Your task to perform on an android device: add a contact Image 0: 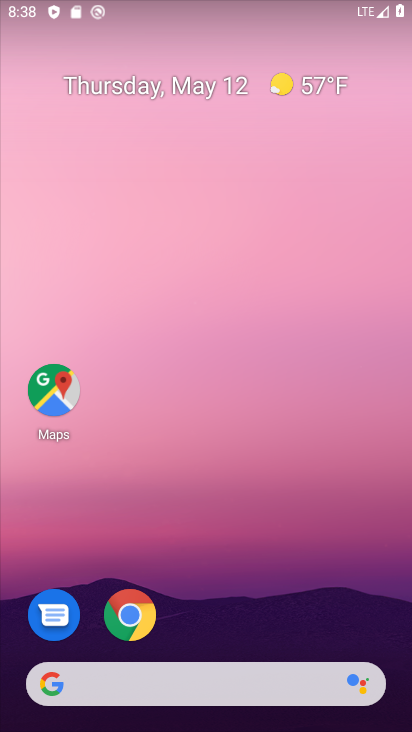
Step 0: drag from (219, 497) to (216, 38)
Your task to perform on an android device: add a contact Image 1: 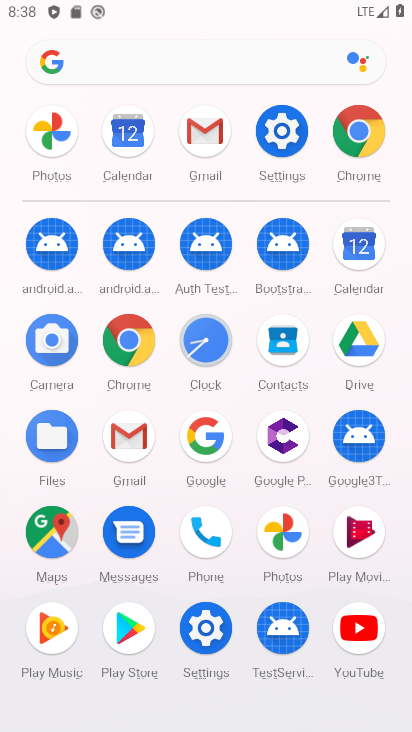
Step 1: click (204, 531)
Your task to perform on an android device: add a contact Image 2: 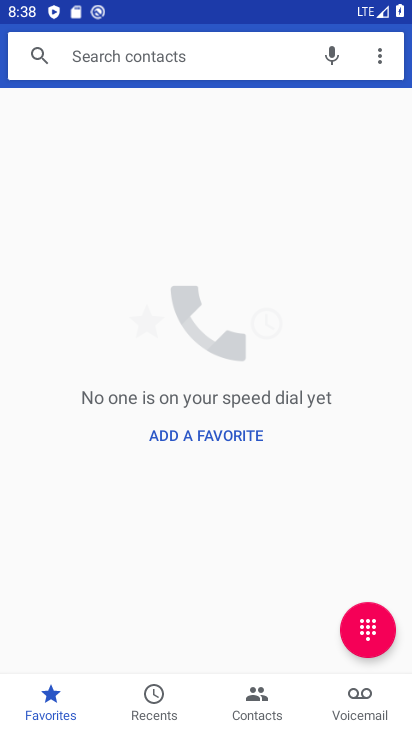
Step 2: click (366, 628)
Your task to perform on an android device: add a contact Image 3: 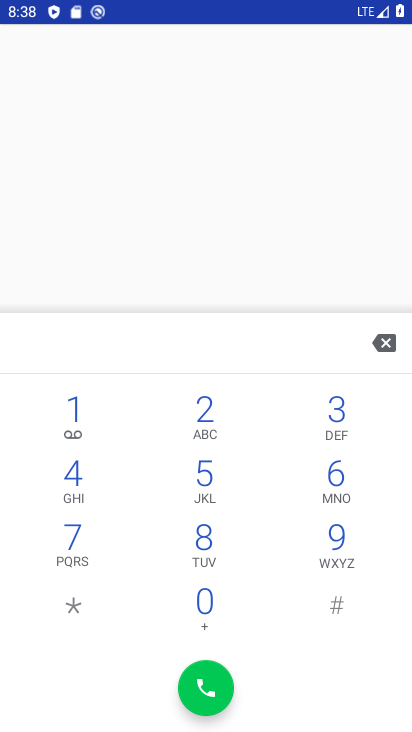
Step 3: click (388, 344)
Your task to perform on an android device: add a contact Image 4: 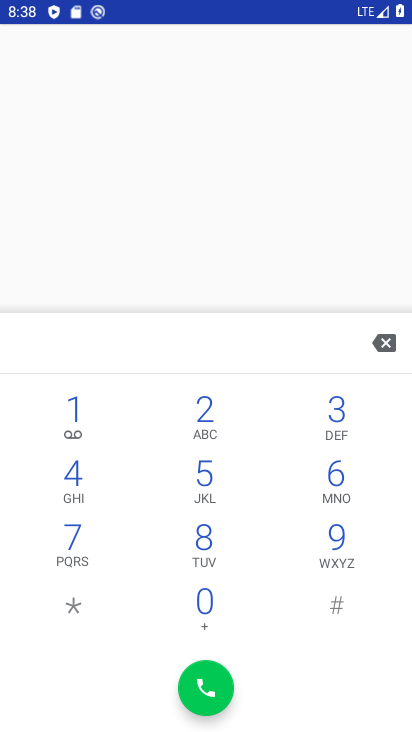
Step 4: press back button
Your task to perform on an android device: add a contact Image 5: 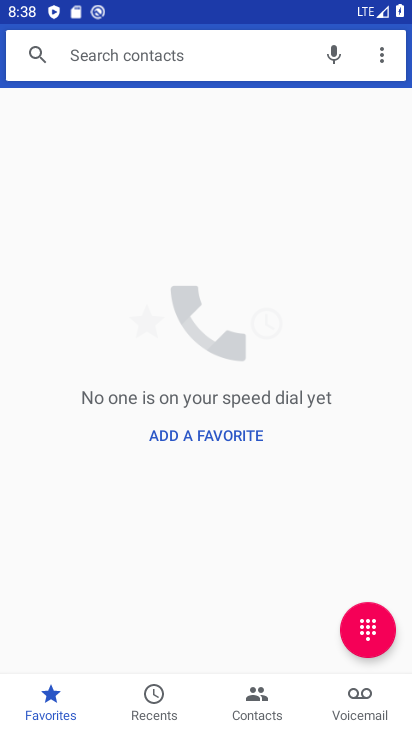
Step 5: click (217, 433)
Your task to perform on an android device: add a contact Image 6: 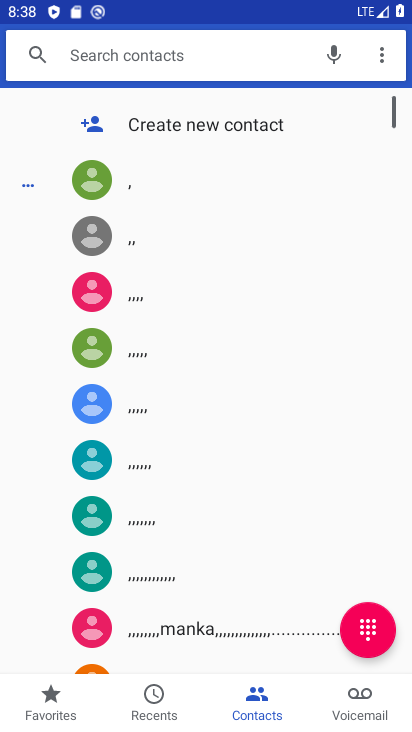
Step 6: click (89, 113)
Your task to perform on an android device: add a contact Image 7: 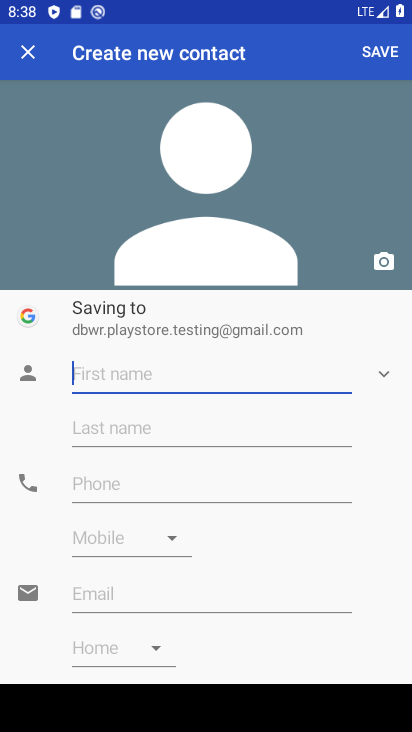
Step 7: type "ZXcv"
Your task to perform on an android device: add a contact Image 8: 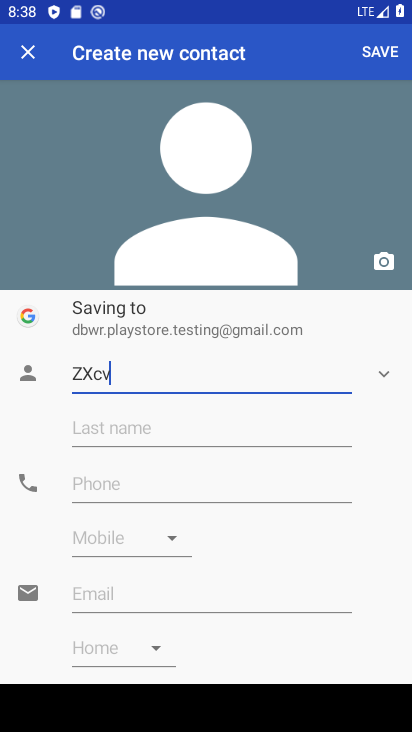
Step 8: type ""
Your task to perform on an android device: add a contact Image 9: 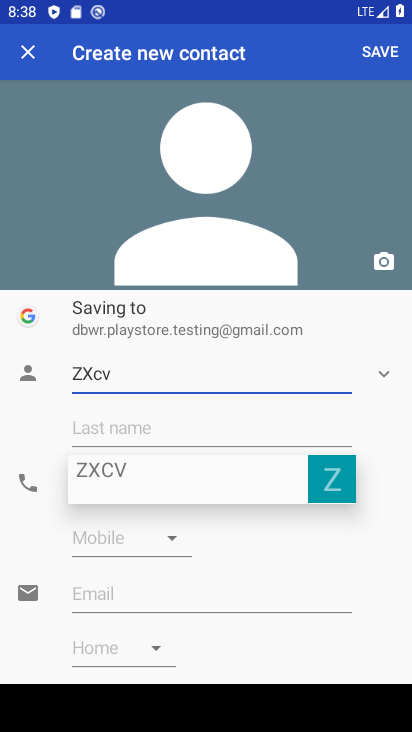
Step 9: click (177, 478)
Your task to perform on an android device: add a contact Image 10: 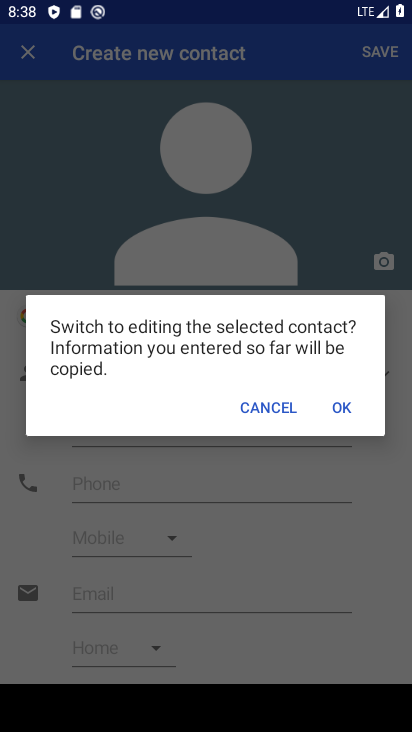
Step 10: click (343, 407)
Your task to perform on an android device: add a contact Image 11: 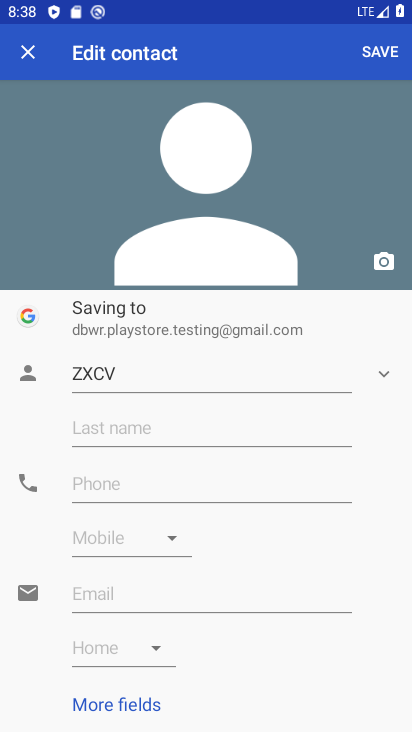
Step 11: click (110, 482)
Your task to perform on an android device: add a contact Image 12: 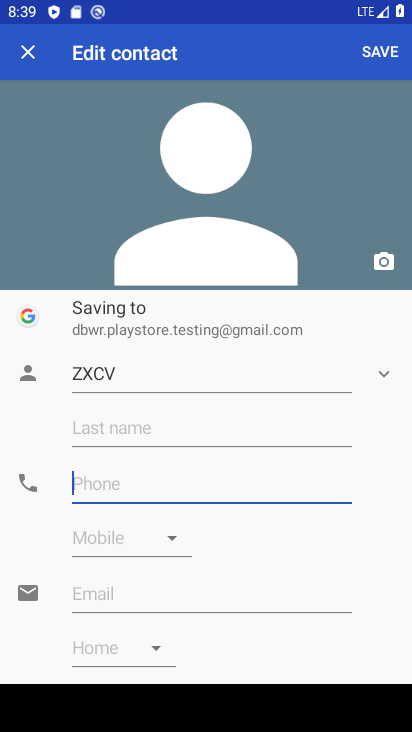
Step 12: type "6789987"
Your task to perform on an android device: add a contact Image 13: 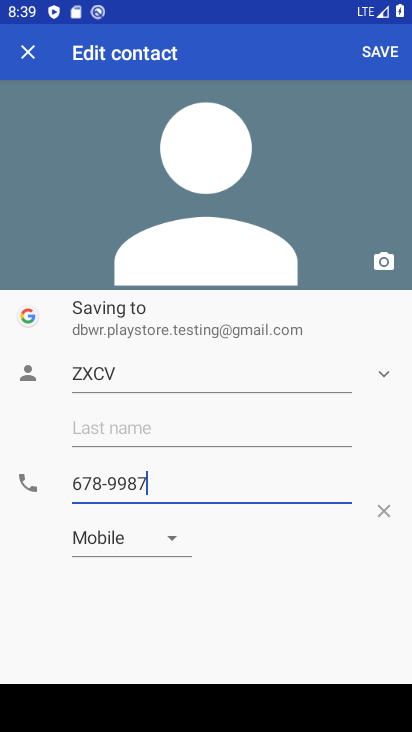
Step 13: type ""
Your task to perform on an android device: add a contact Image 14: 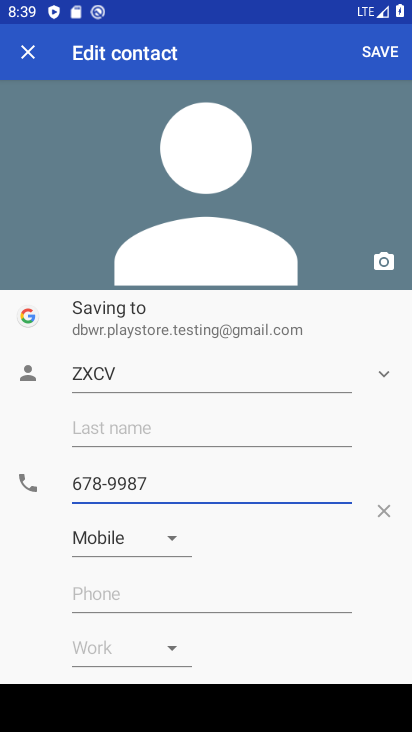
Step 14: click (370, 51)
Your task to perform on an android device: add a contact Image 15: 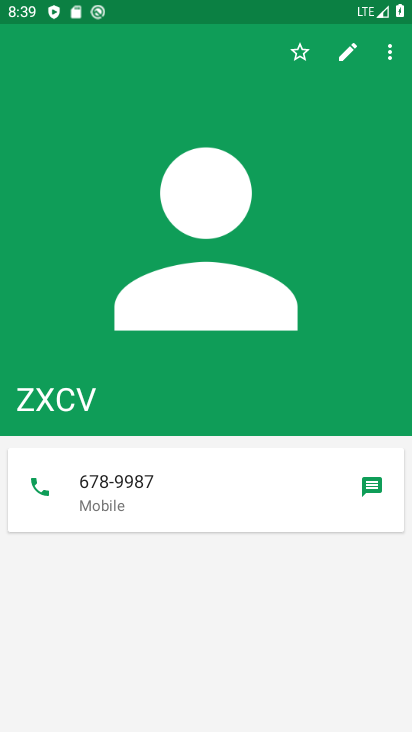
Step 15: task complete